Your task to perform on an android device: Go to Wikipedia Image 0: 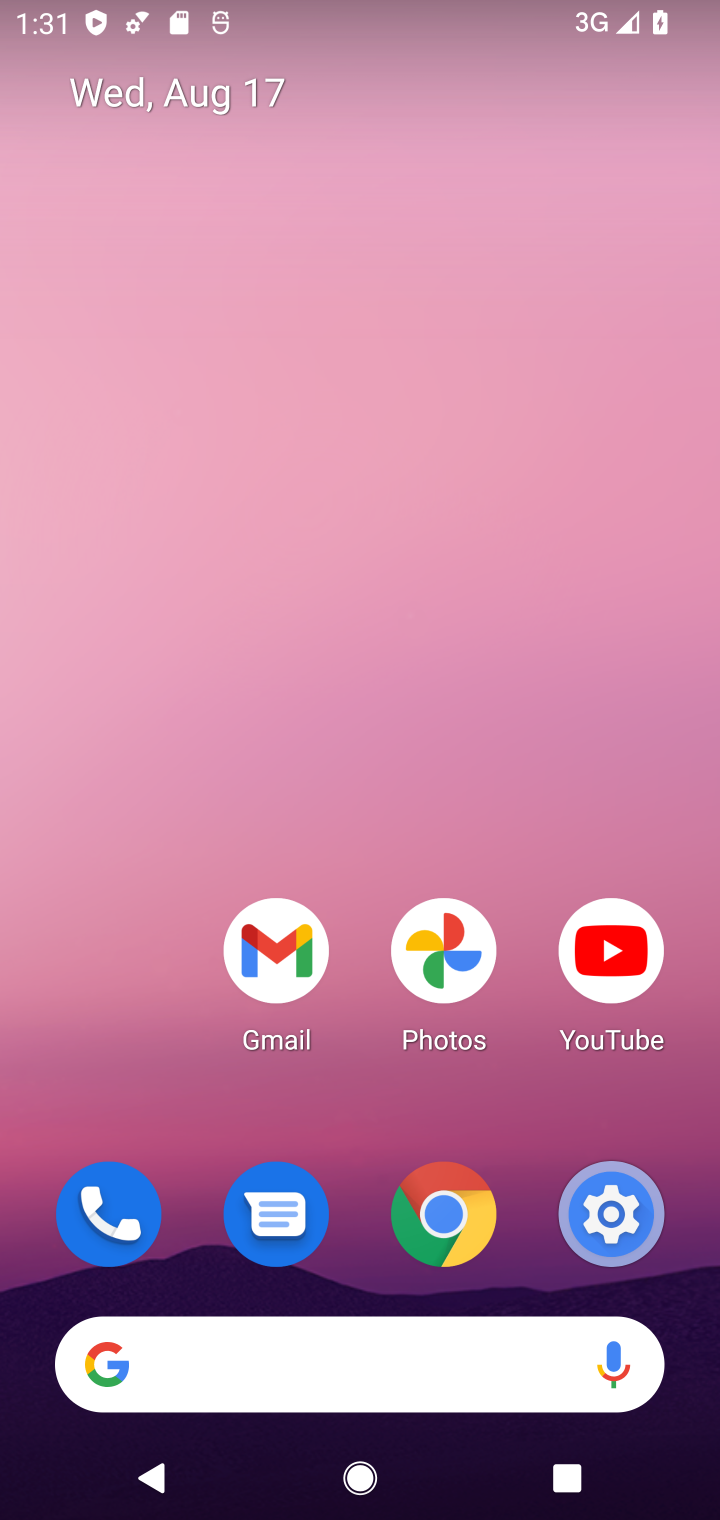
Step 0: click (450, 1214)
Your task to perform on an android device: Go to Wikipedia Image 1: 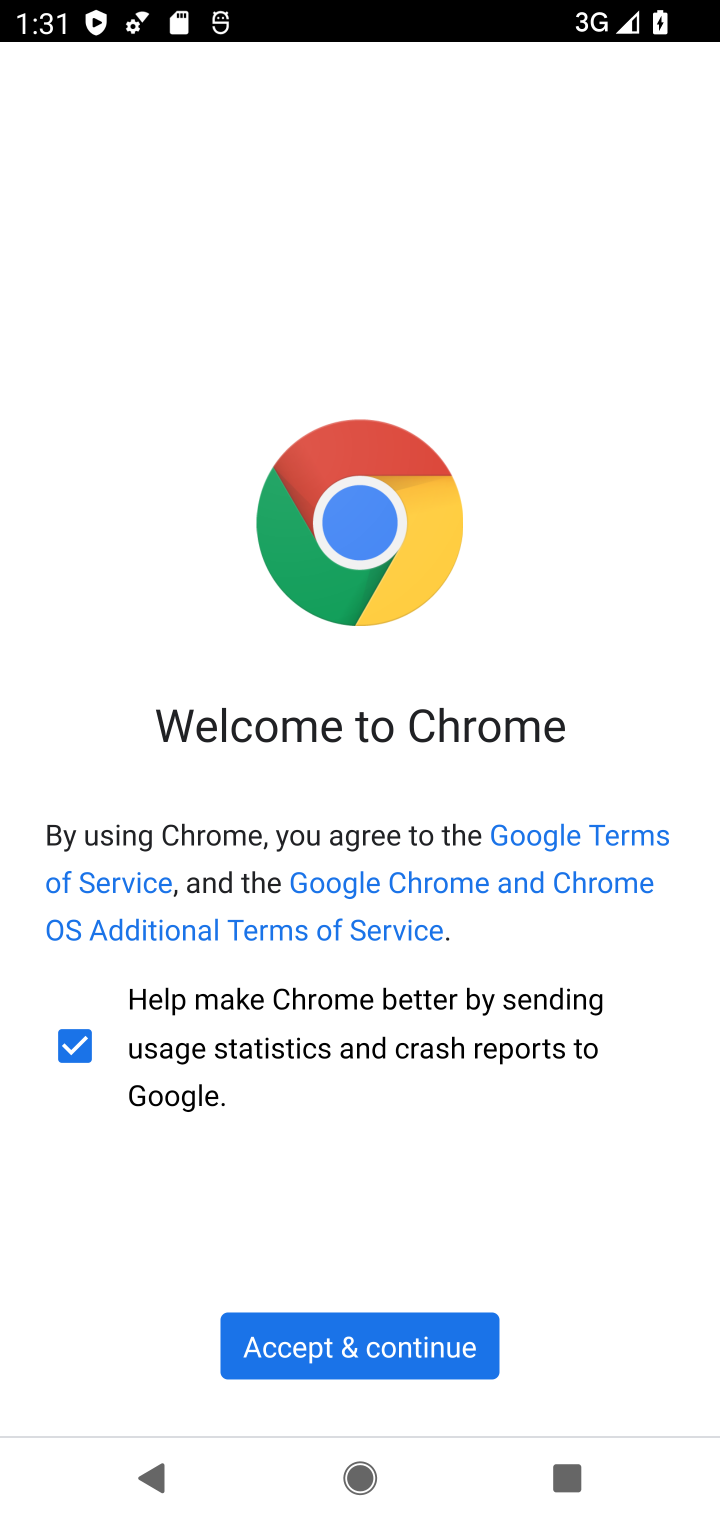
Step 1: click (349, 1343)
Your task to perform on an android device: Go to Wikipedia Image 2: 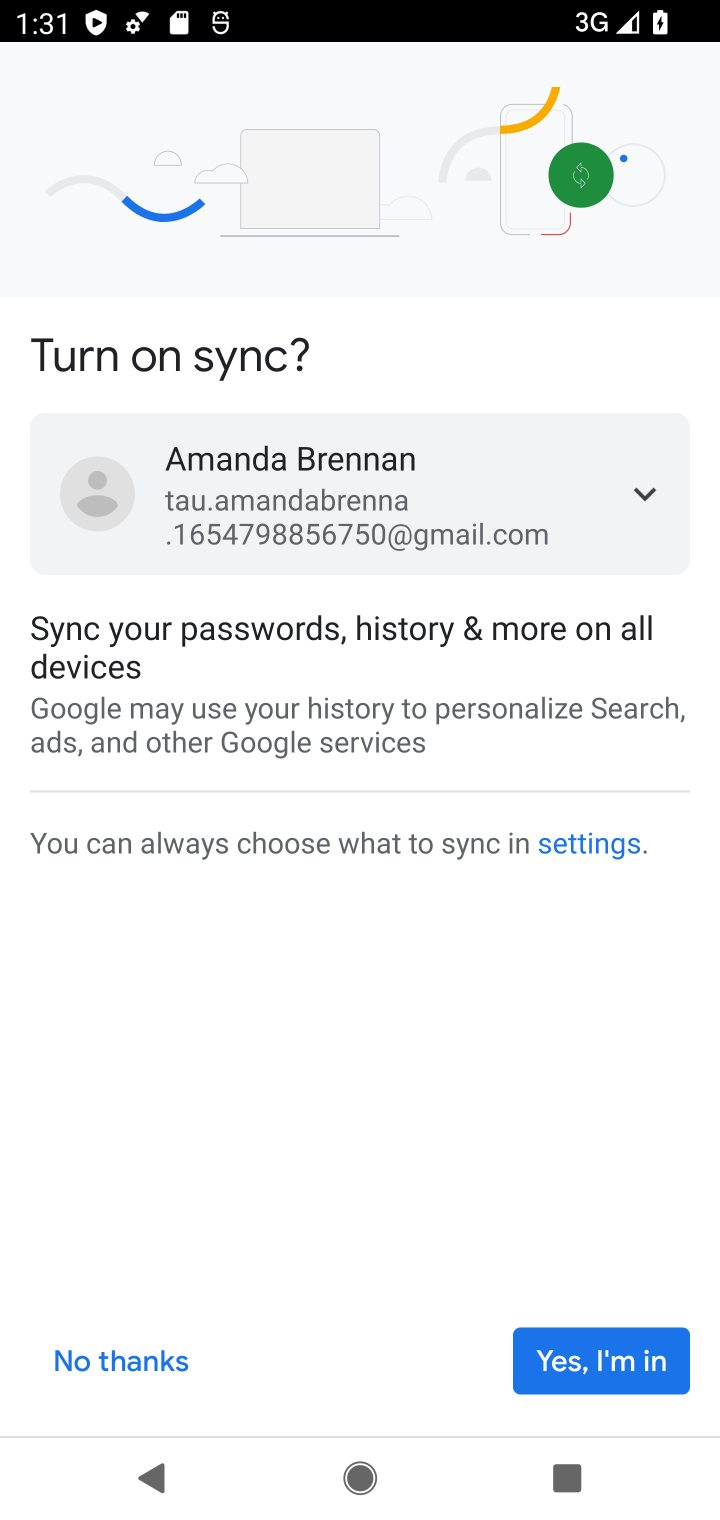
Step 2: click (608, 1353)
Your task to perform on an android device: Go to Wikipedia Image 3: 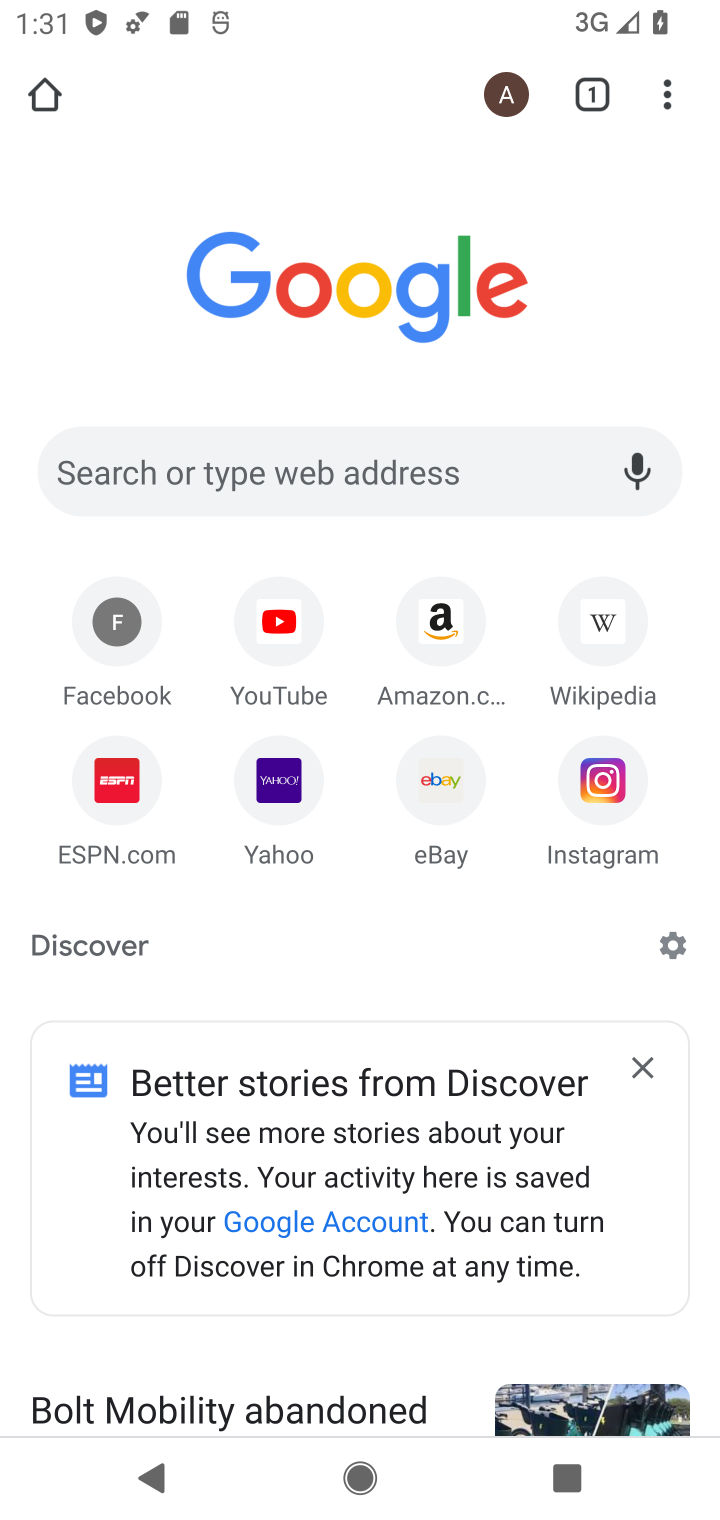
Step 3: click (604, 618)
Your task to perform on an android device: Go to Wikipedia Image 4: 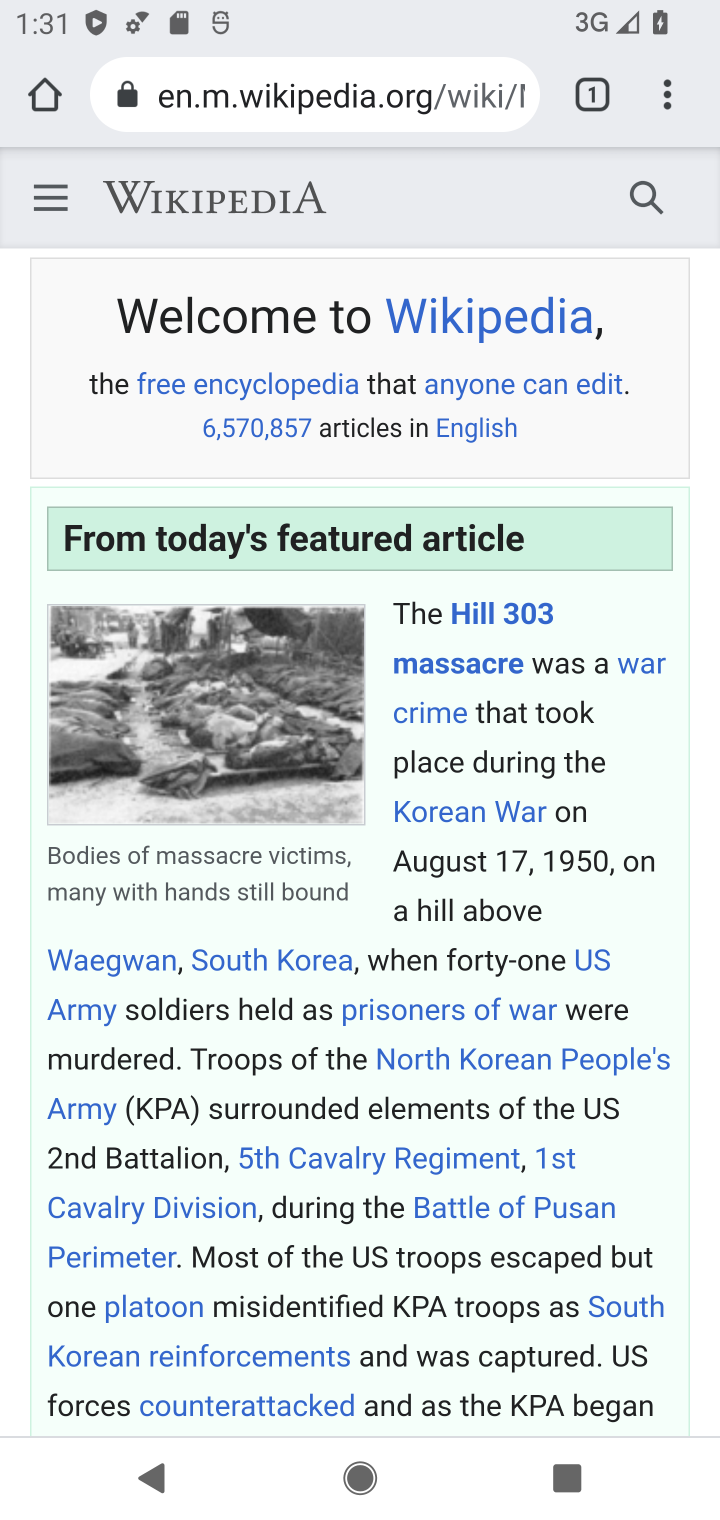
Step 4: task complete